Your task to perform on an android device: What is the news today? Image 0: 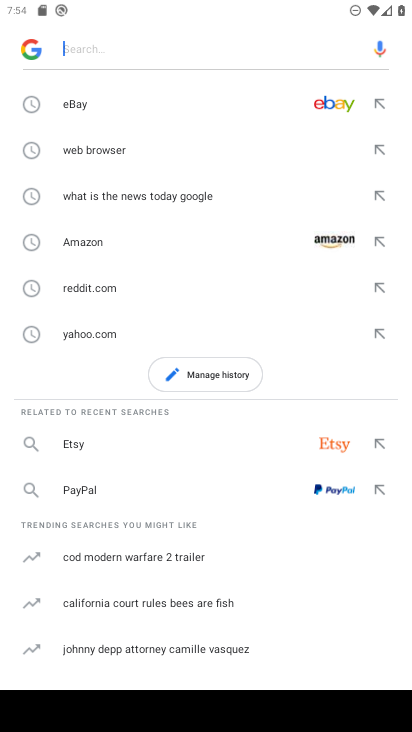
Step 0: press back button
Your task to perform on an android device: What is the news today? Image 1: 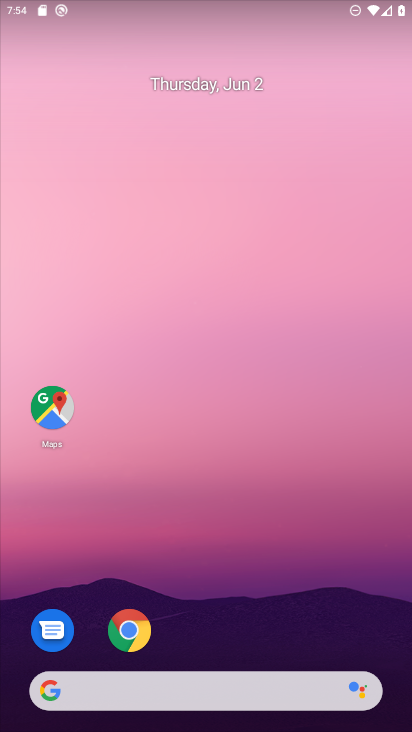
Step 1: click (147, 692)
Your task to perform on an android device: What is the news today? Image 2: 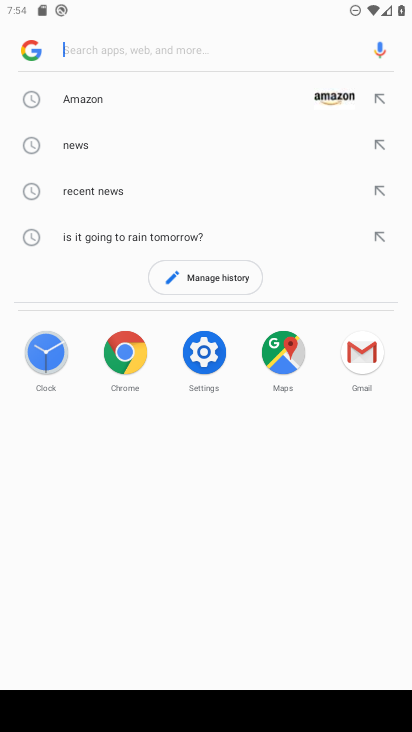
Step 2: type "recent news"
Your task to perform on an android device: What is the news today? Image 3: 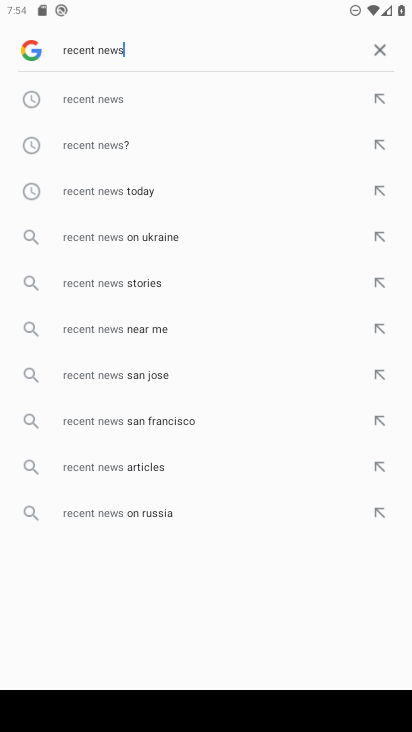
Step 3: click (65, 102)
Your task to perform on an android device: What is the news today? Image 4: 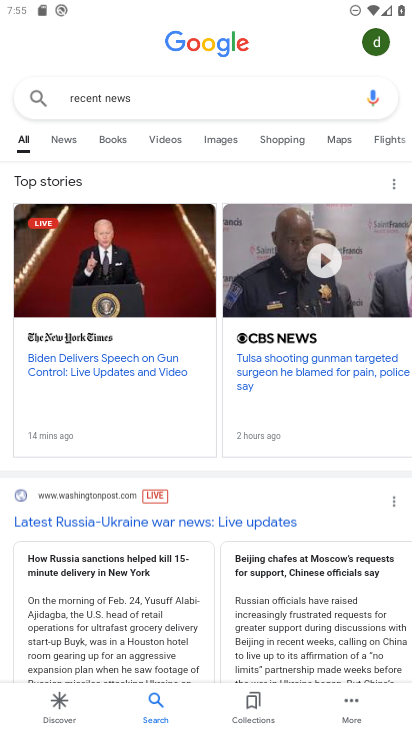
Step 4: task complete